Your task to perform on an android device: turn pop-ups off in chrome Image 0: 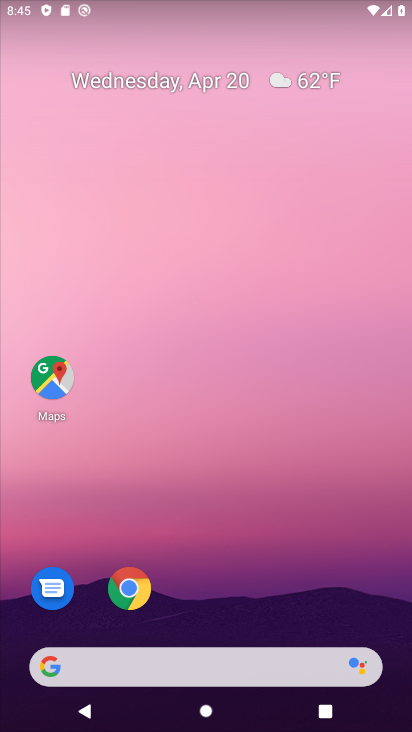
Step 0: click (125, 584)
Your task to perform on an android device: turn pop-ups off in chrome Image 1: 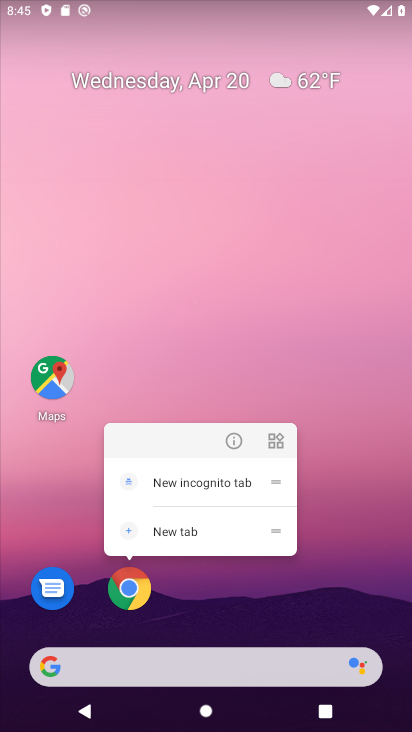
Step 1: click (190, 257)
Your task to perform on an android device: turn pop-ups off in chrome Image 2: 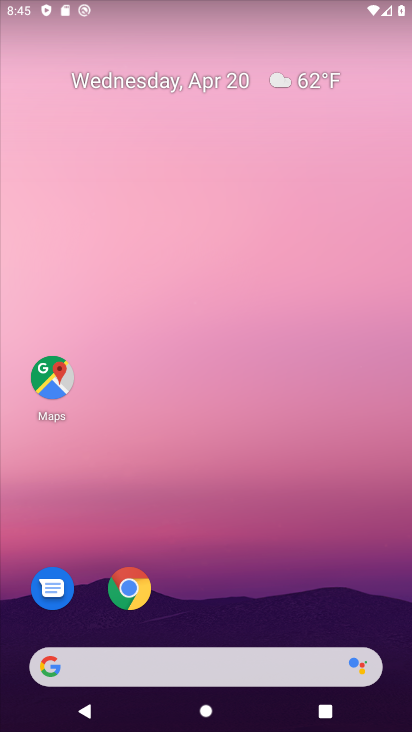
Step 2: click (127, 582)
Your task to perform on an android device: turn pop-ups off in chrome Image 3: 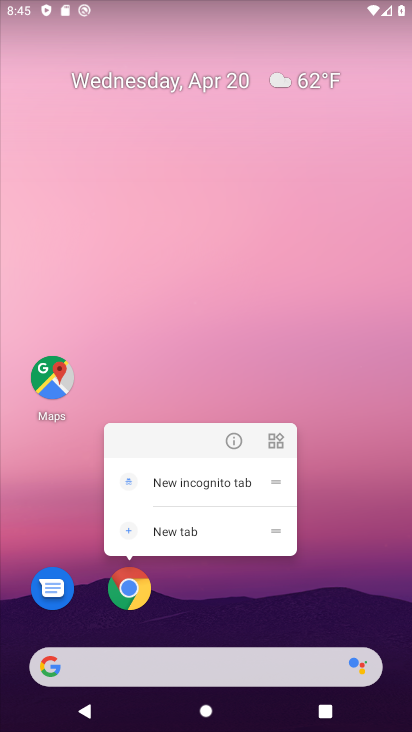
Step 3: click (127, 582)
Your task to perform on an android device: turn pop-ups off in chrome Image 4: 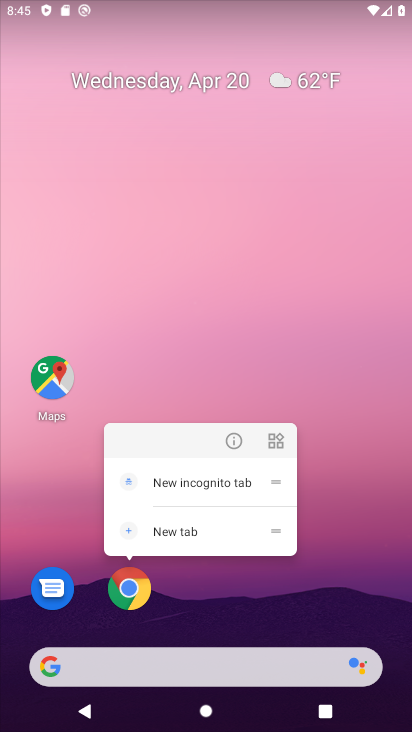
Step 4: click (196, 600)
Your task to perform on an android device: turn pop-ups off in chrome Image 5: 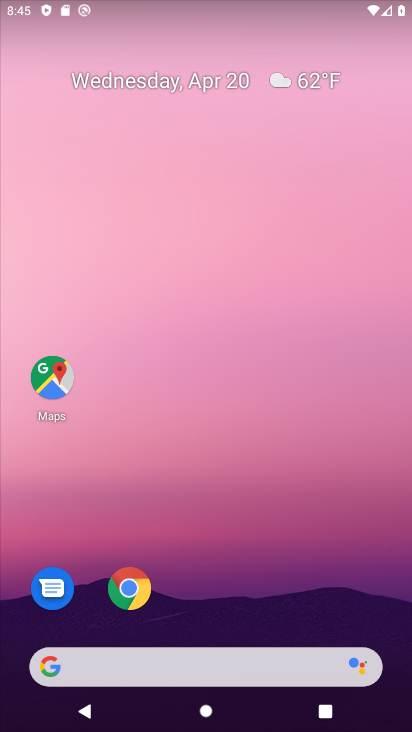
Step 5: click (255, 232)
Your task to perform on an android device: turn pop-ups off in chrome Image 6: 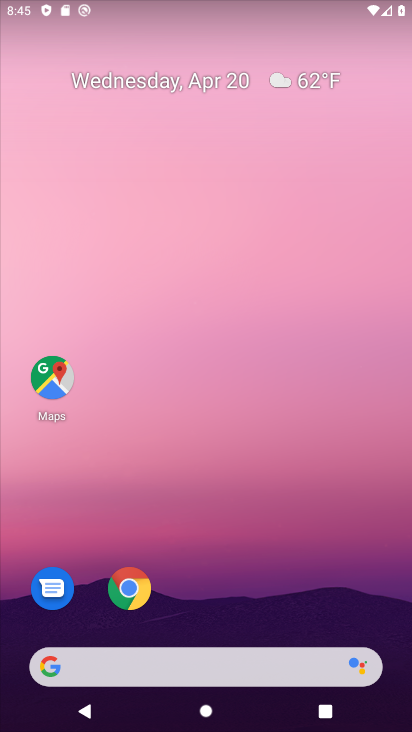
Step 6: click (127, 585)
Your task to perform on an android device: turn pop-ups off in chrome Image 7: 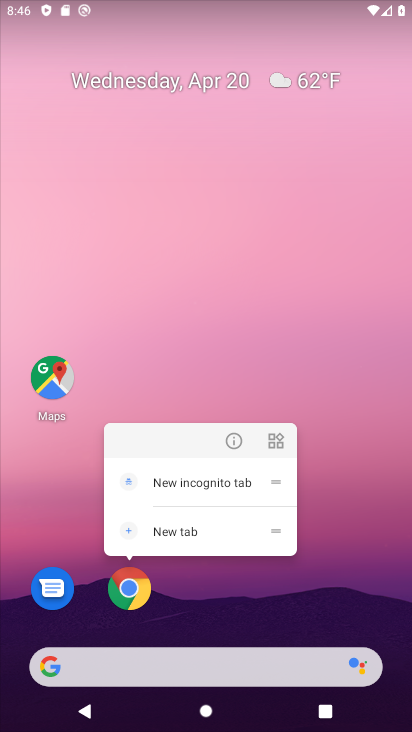
Step 7: click (178, 600)
Your task to perform on an android device: turn pop-ups off in chrome Image 8: 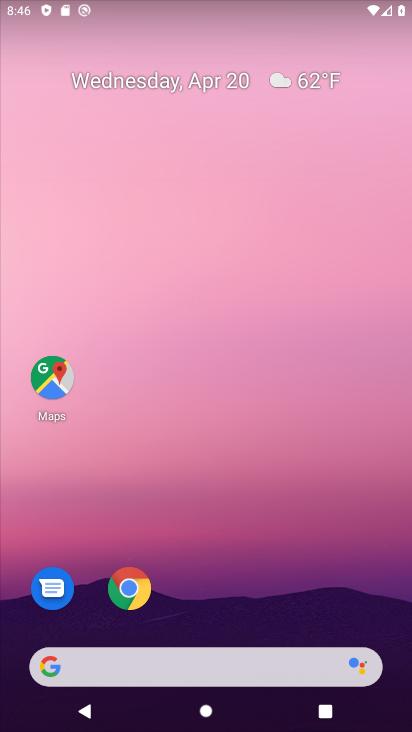
Step 8: click (292, 622)
Your task to perform on an android device: turn pop-ups off in chrome Image 9: 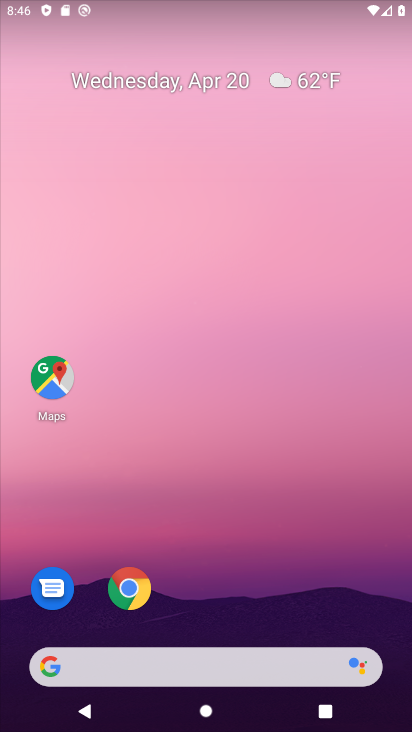
Step 9: click (123, 583)
Your task to perform on an android device: turn pop-ups off in chrome Image 10: 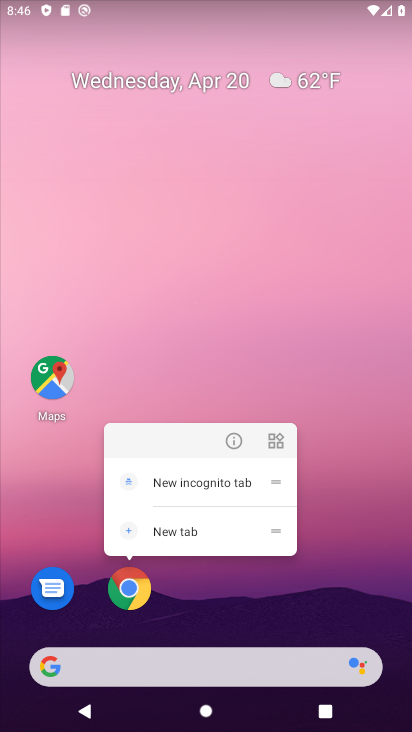
Step 10: click (125, 582)
Your task to perform on an android device: turn pop-ups off in chrome Image 11: 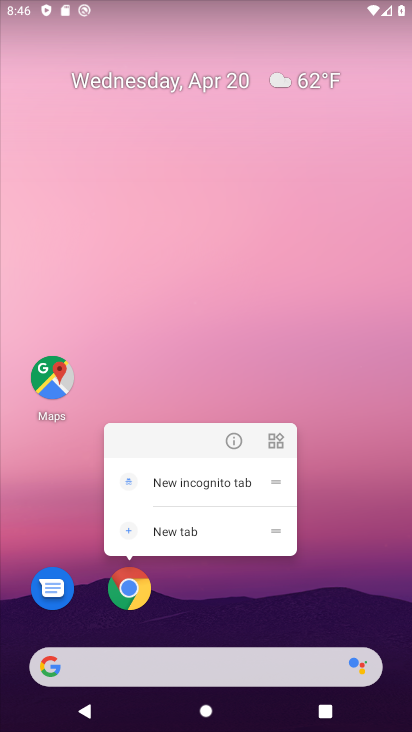
Step 11: click (168, 607)
Your task to perform on an android device: turn pop-ups off in chrome Image 12: 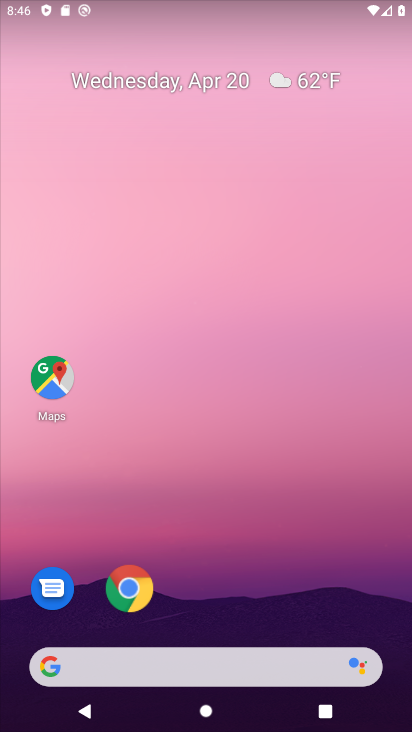
Step 12: click (199, 600)
Your task to perform on an android device: turn pop-ups off in chrome Image 13: 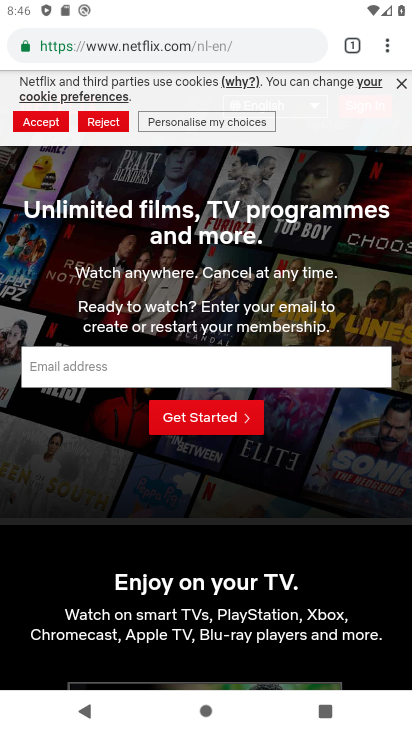
Step 13: click (388, 41)
Your task to perform on an android device: turn pop-ups off in chrome Image 14: 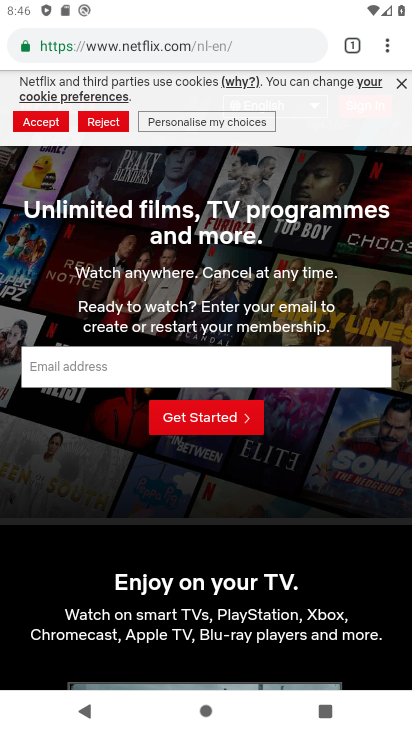
Step 14: click (384, 44)
Your task to perform on an android device: turn pop-ups off in chrome Image 15: 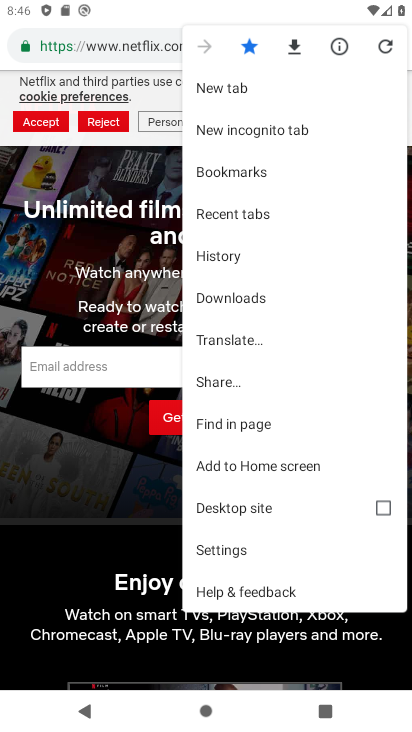
Step 15: click (256, 548)
Your task to perform on an android device: turn pop-ups off in chrome Image 16: 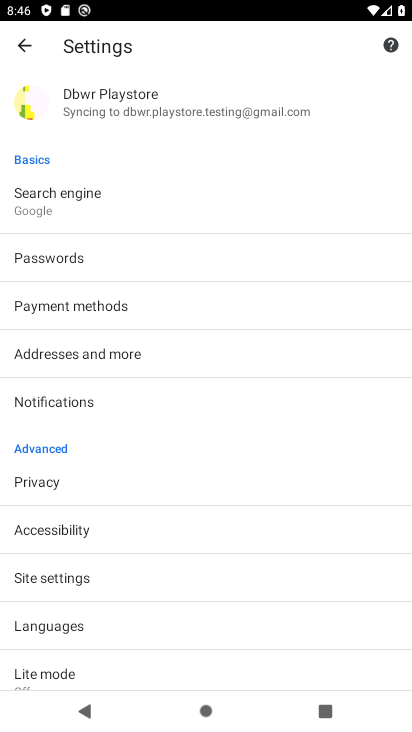
Step 16: click (105, 576)
Your task to perform on an android device: turn pop-ups off in chrome Image 17: 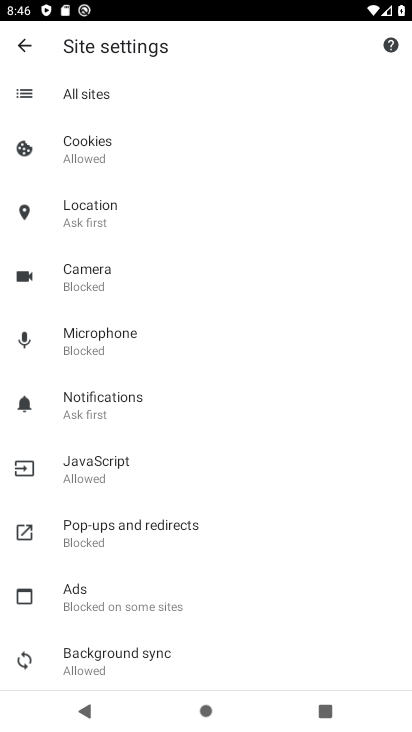
Step 17: click (131, 536)
Your task to perform on an android device: turn pop-ups off in chrome Image 18: 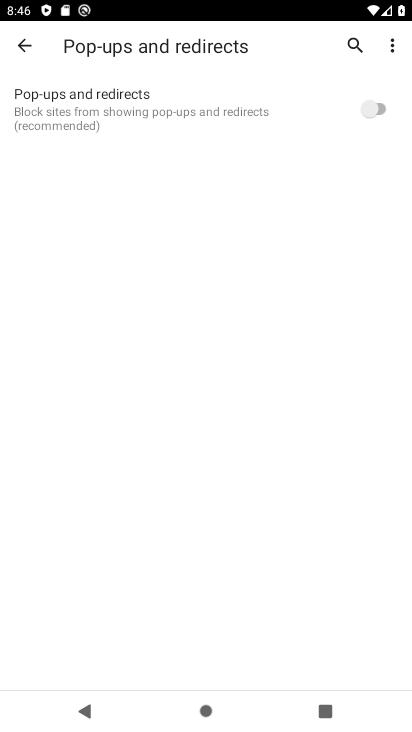
Step 18: task complete